Your task to perform on an android device: remove spam from my inbox in the gmail app Image 0: 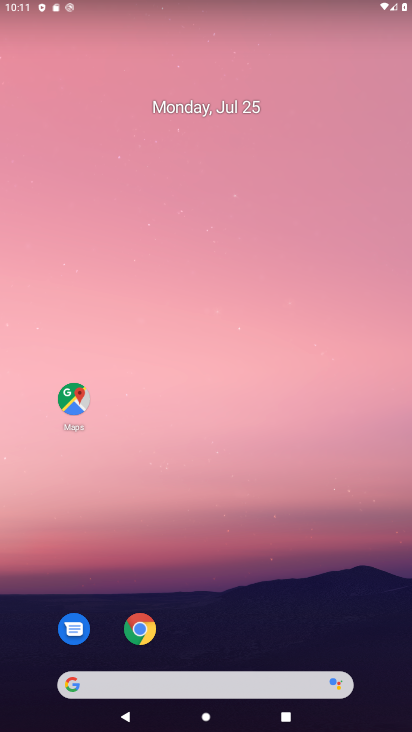
Step 0: drag from (236, 652) to (266, 37)
Your task to perform on an android device: remove spam from my inbox in the gmail app Image 1: 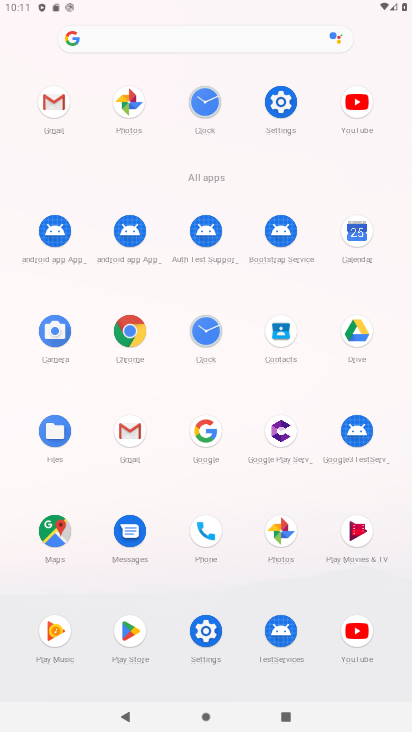
Step 1: click (52, 109)
Your task to perform on an android device: remove spam from my inbox in the gmail app Image 2: 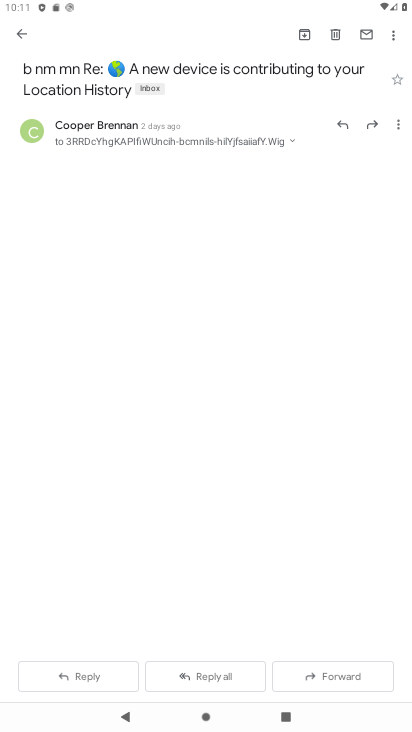
Step 2: click (18, 33)
Your task to perform on an android device: remove spam from my inbox in the gmail app Image 3: 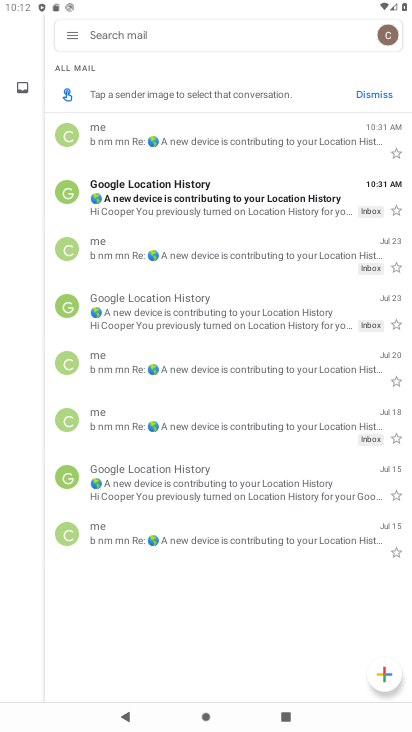
Step 3: click (74, 37)
Your task to perform on an android device: remove spam from my inbox in the gmail app Image 4: 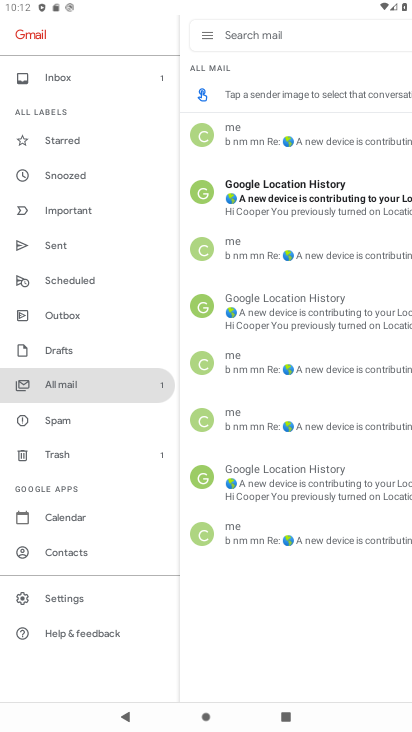
Step 4: click (58, 424)
Your task to perform on an android device: remove spam from my inbox in the gmail app Image 5: 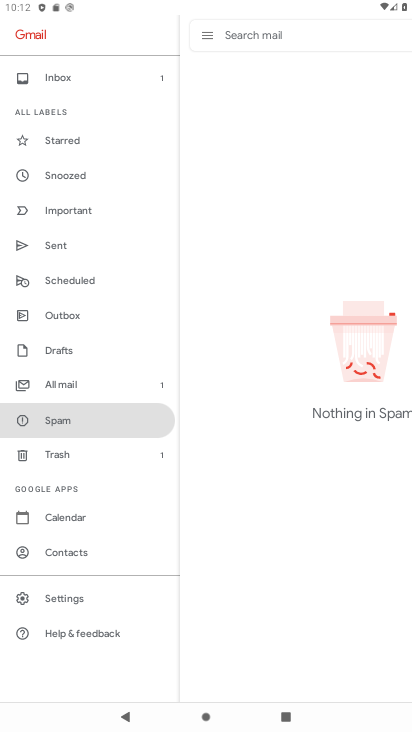
Step 5: task complete